Your task to perform on an android device: Search for seafood restaurants on Google Maps Image 0: 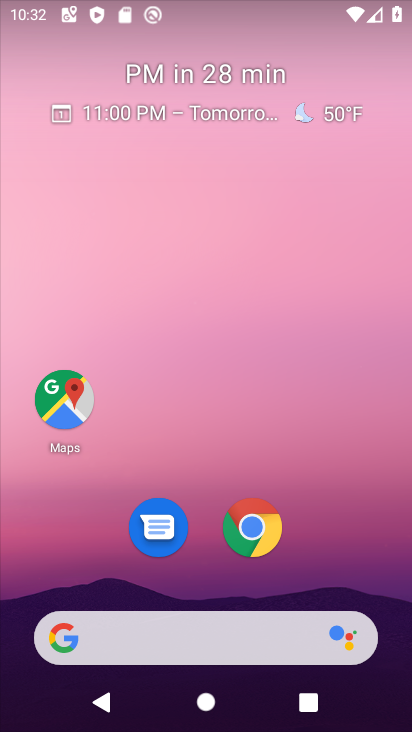
Step 0: press home button
Your task to perform on an android device: Search for seafood restaurants on Google Maps Image 1: 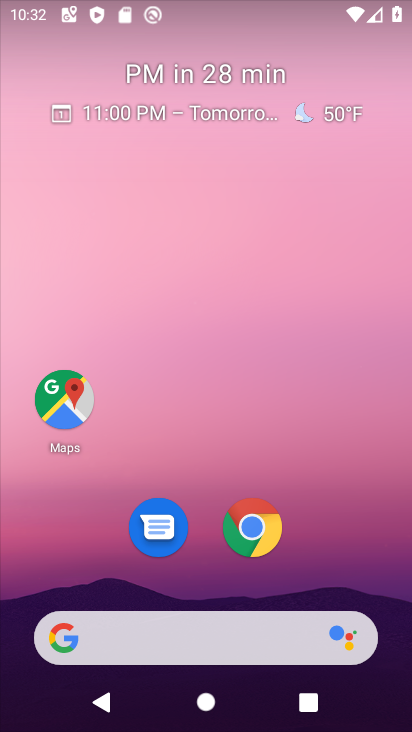
Step 1: drag from (372, 578) to (323, 112)
Your task to perform on an android device: Search for seafood restaurants on Google Maps Image 2: 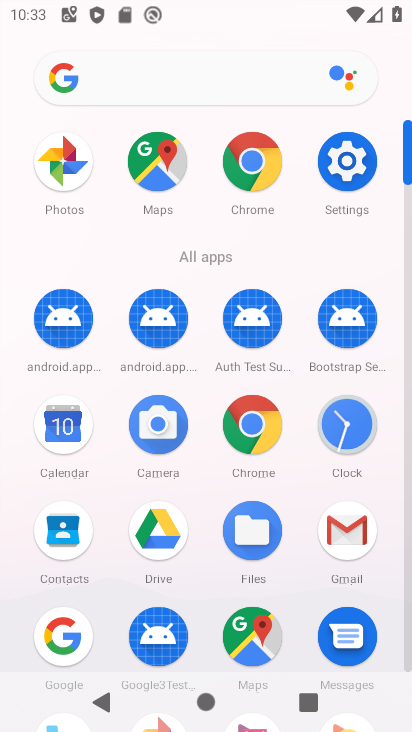
Step 2: click (242, 633)
Your task to perform on an android device: Search for seafood restaurants on Google Maps Image 3: 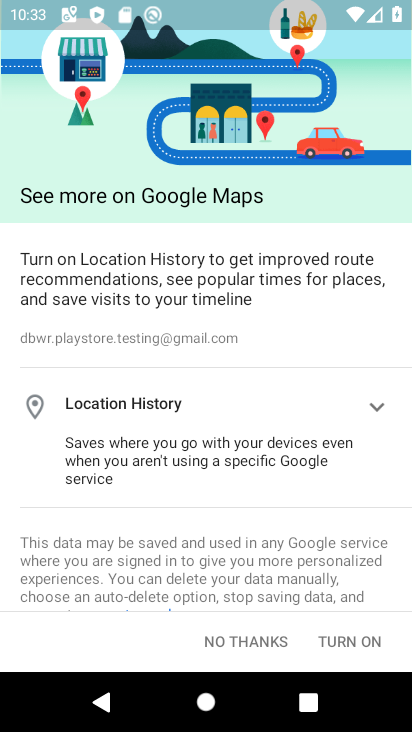
Step 3: click (230, 640)
Your task to perform on an android device: Search for seafood restaurants on Google Maps Image 4: 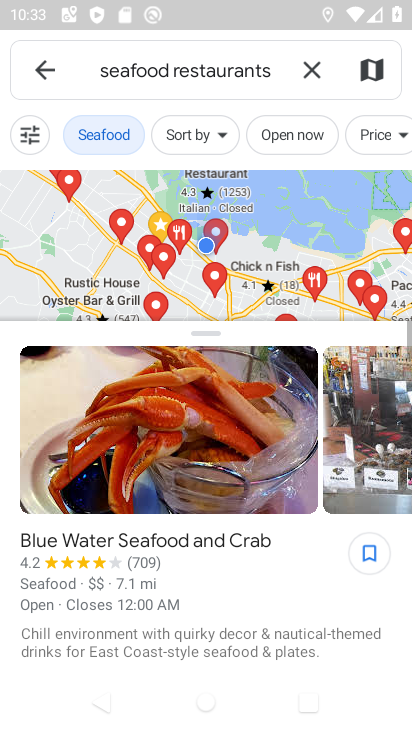
Step 4: task complete